Your task to perform on an android device: set an alarm Image 0: 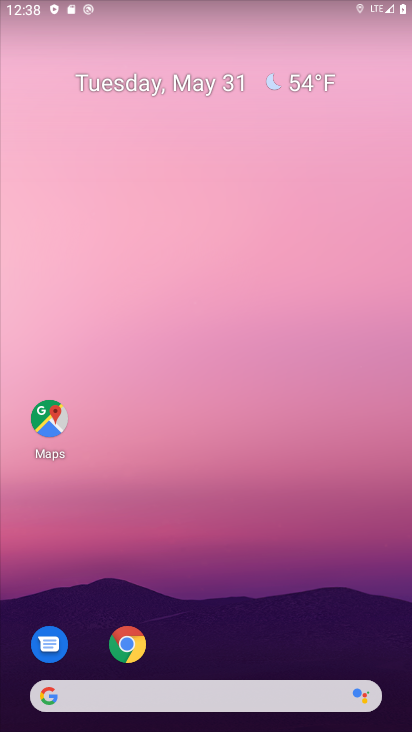
Step 0: press home button
Your task to perform on an android device: set an alarm Image 1: 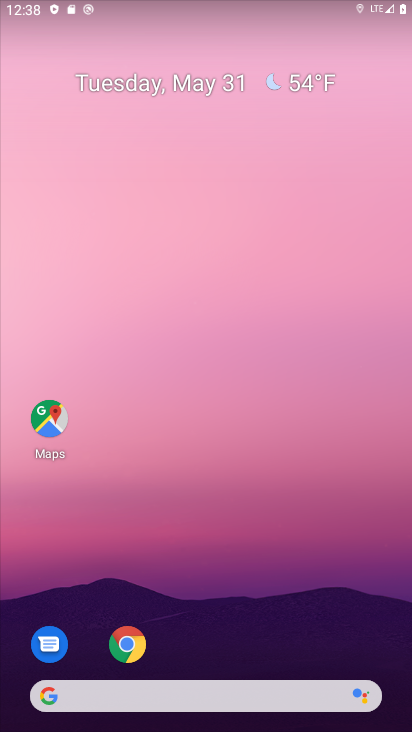
Step 1: drag from (248, 630) to (247, 65)
Your task to perform on an android device: set an alarm Image 2: 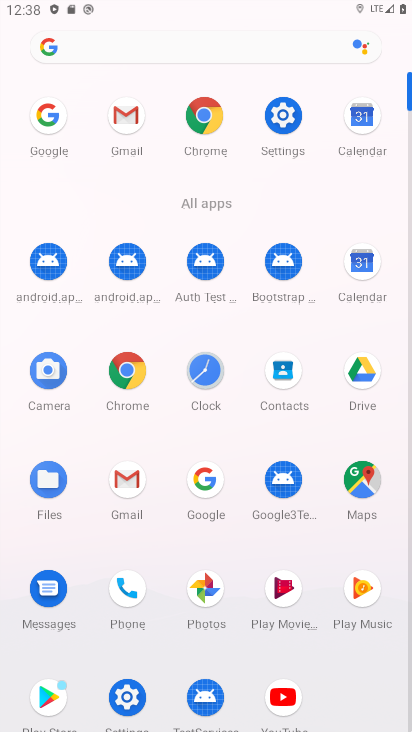
Step 2: click (215, 373)
Your task to perform on an android device: set an alarm Image 3: 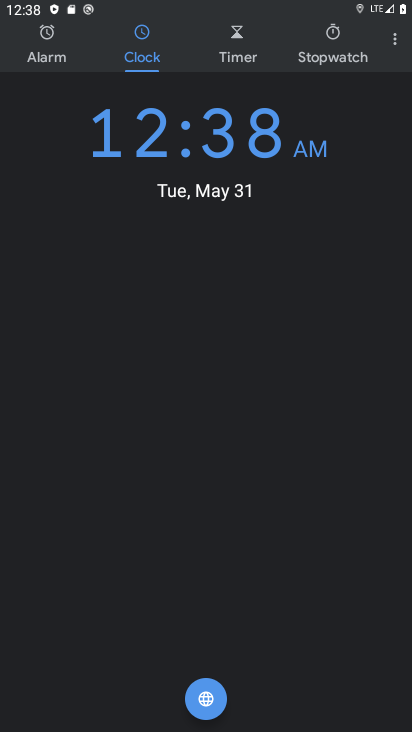
Step 3: click (45, 33)
Your task to perform on an android device: set an alarm Image 4: 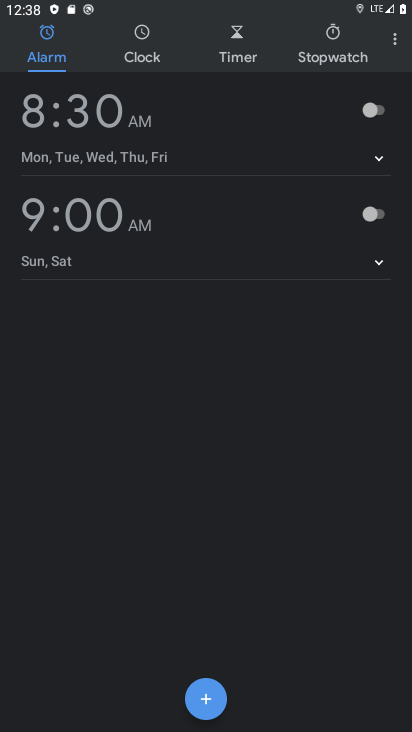
Step 4: click (373, 109)
Your task to perform on an android device: set an alarm Image 5: 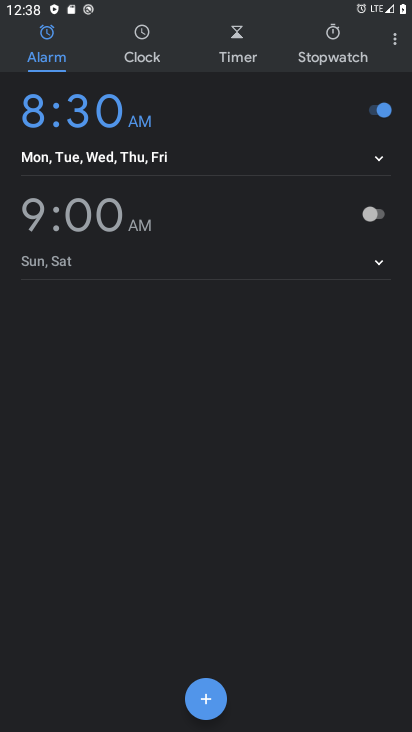
Step 5: task complete